Your task to perform on an android device: Open Chrome and go to the settings page Image 0: 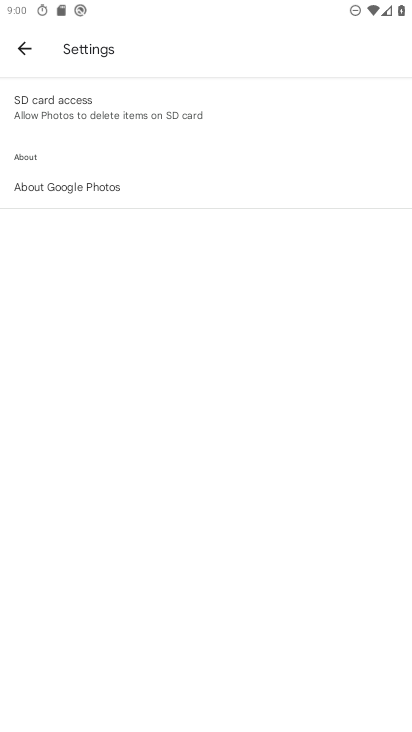
Step 0: press home button
Your task to perform on an android device: Open Chrome and go to the settings page Image 1: 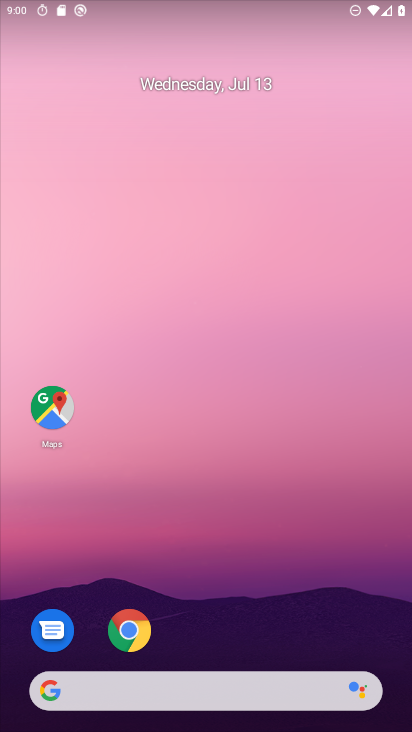
Step 1: drag from (390, 675) to (207, 9)
Your task to perform on an android device: Open Chrome and go to the settings page Image 2: 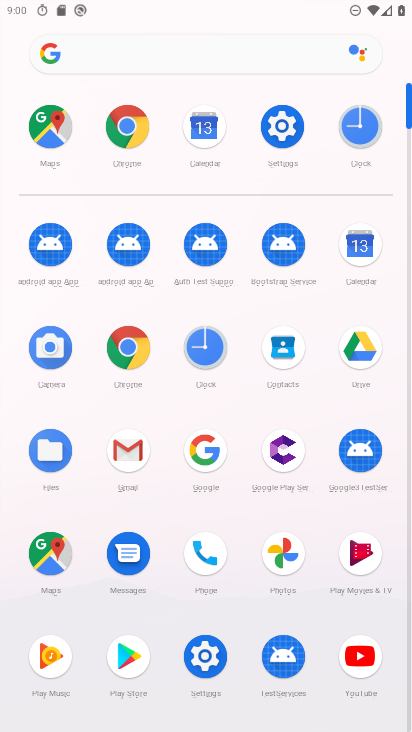
Step 2: click (136, 357)
Your task to perform on an android device: Open Chrome and go to the settings page Image 3: 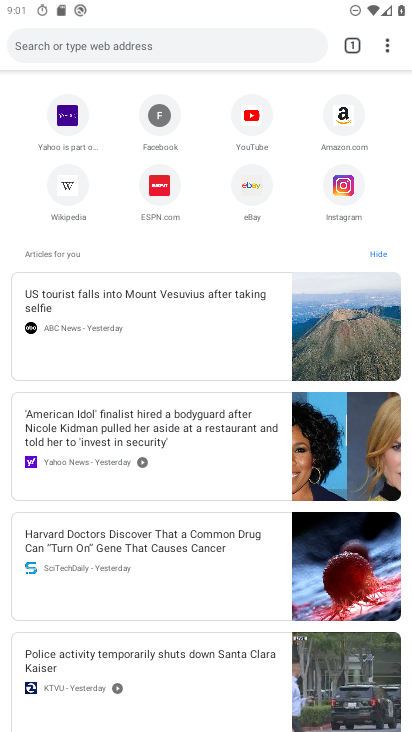
Step 3: click (389, 41)
Your task to perform on an android device: Open Chrome and go to the settings page Image 4: 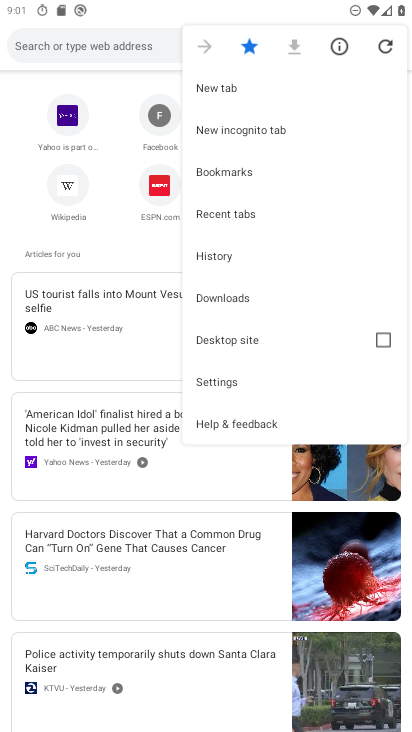
Step 4: click (248, 384)
Your task to perform on an android device: Open Chrome and go to the settings page Image 5: 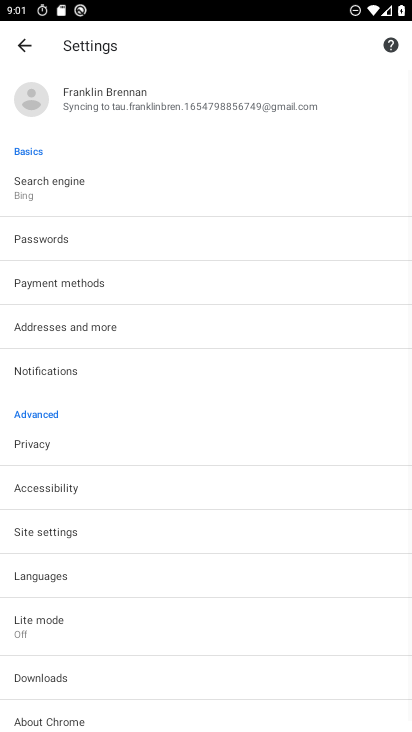
Step 5: task complete